Your task to perform on an android device: toggle show notifications on the lock screen Image 0: 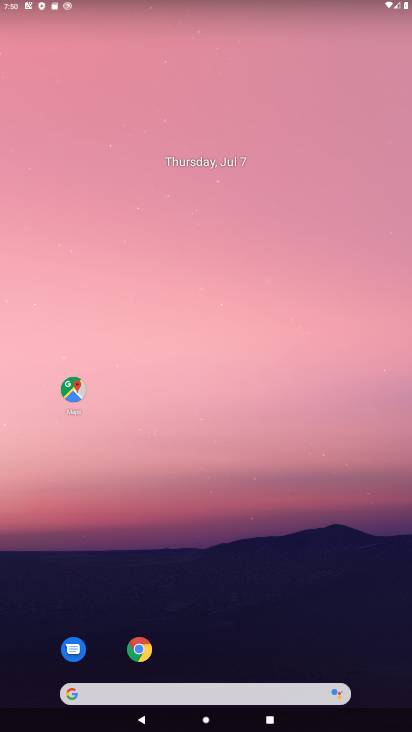
Step 0: drag from (253, 447) to (118, 53)
Your task to perform on an android device: toggle show notifications on the lock screen Image 1: 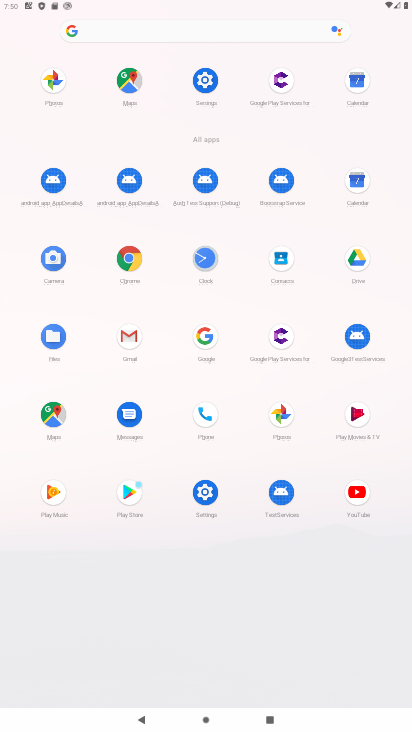
Step 1: click (198, 494)
Your task to perform on an android device: toggle show notifications on the lock screen Image 2: 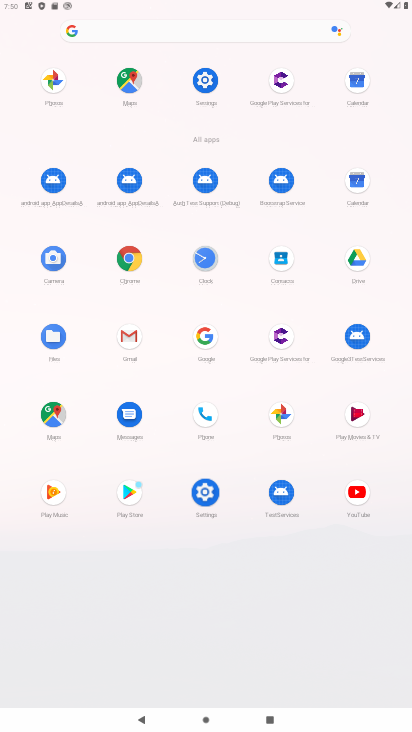
Step 2: click (210, 499)
Your task to perform on an android device: toggle show notifications on the lock screen Image 3: 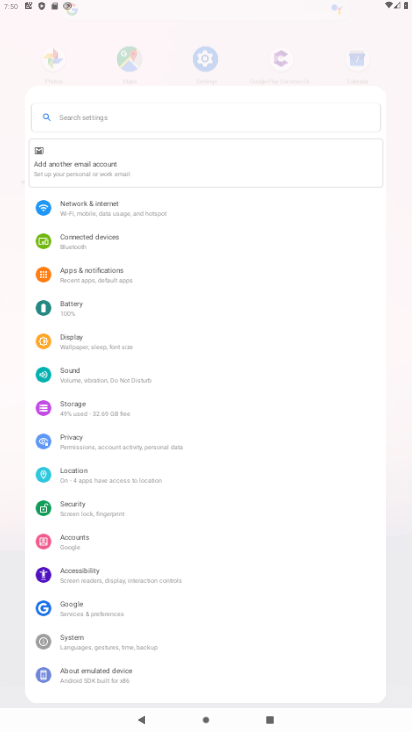
Step 3: click (209, 494)
Your task to perform on an android device: toggle show notifications on the lock screen Image 4: 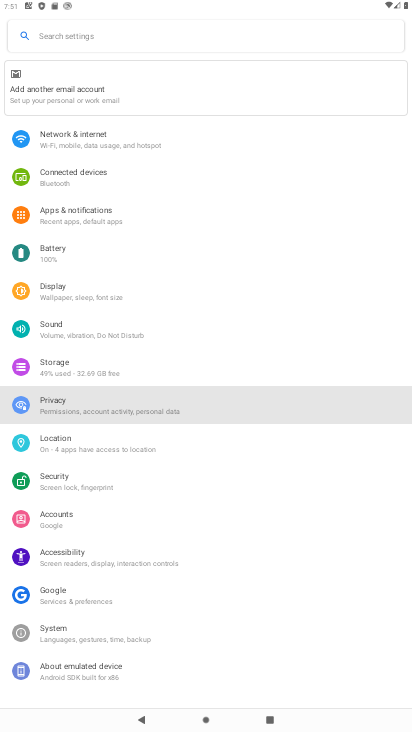
Step 4: click (210, 494)
Your task to perform on an android device: toggle show notifications on the lock screen Image 5: 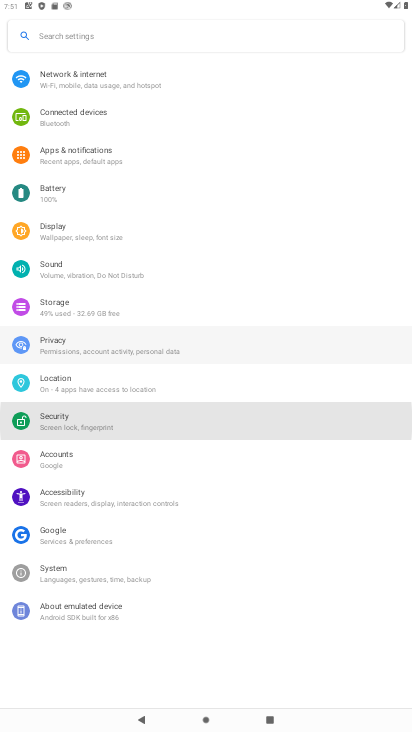
Step 5: click (210, 494)
Your task to perform on an android device: toggle show notifications on the lock screen Image 6: 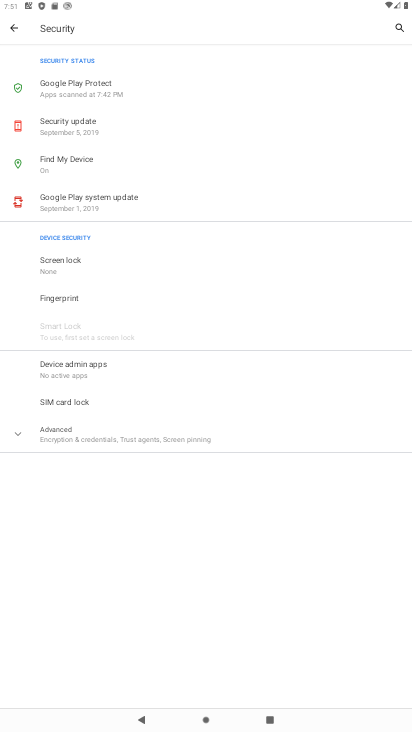
Step 6: click (87, 154)
Your task to perform on an android device: toggle show notifications on the lock screen Image 7: 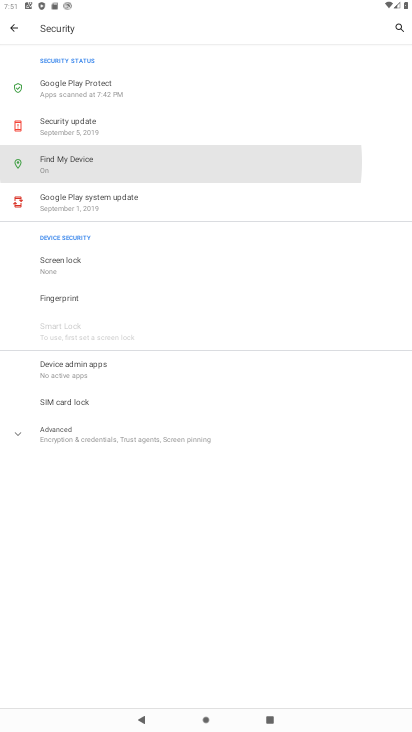
Step 7: click (87, 154)
Your task to perform on an android device: toggle show notifications on the lock screen Image 8: 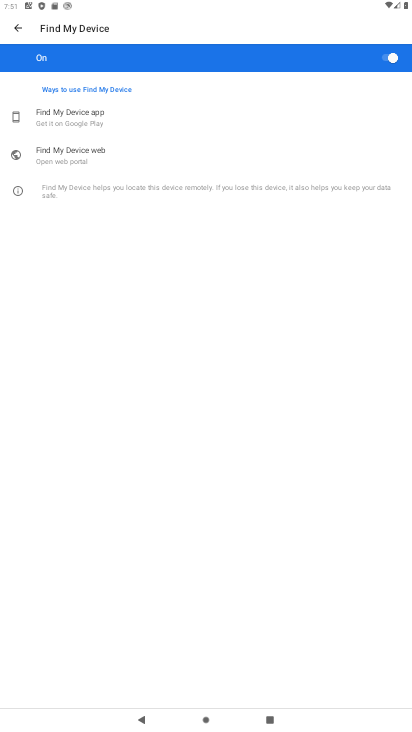
Step 8: click (18, 32)
Your task to perform on an android device: toggle show notifications on the lock screen Image 9: 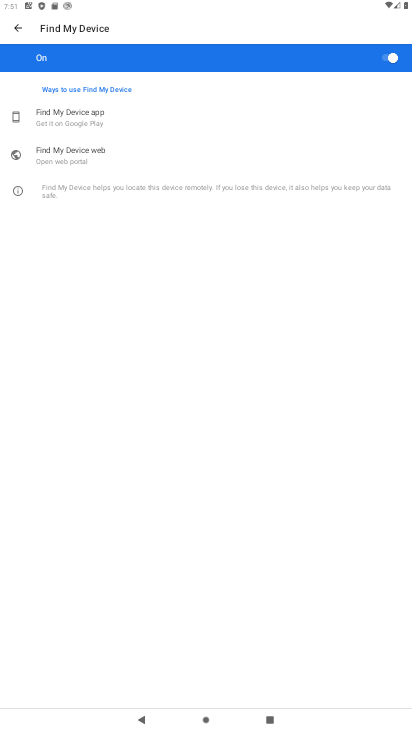
Step 9: click (24, 24)
Your task to perform on an android device: toggle show notifications on the lock screen Image 10: 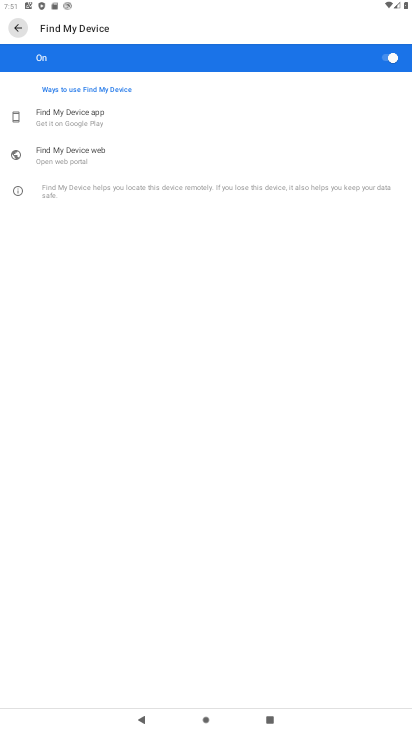
Step 10: click (24, 24)
Your task to perform on an android device: toggle show notifications on the lock screen Image 11: 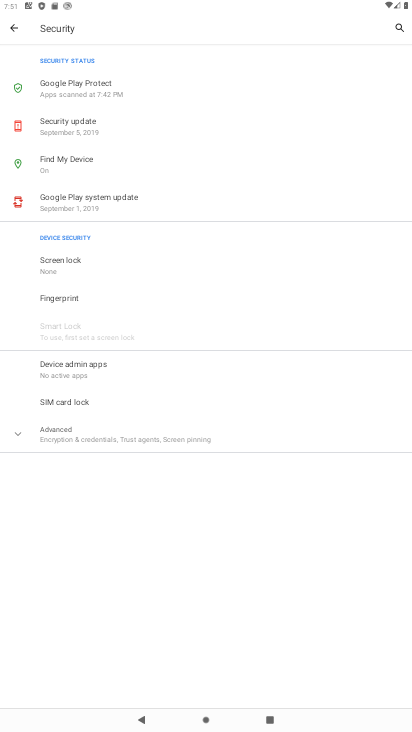
Step 11: click (15, 24)
Your task to perform on an android device: toggle show notifications on the lock screen Image 12: 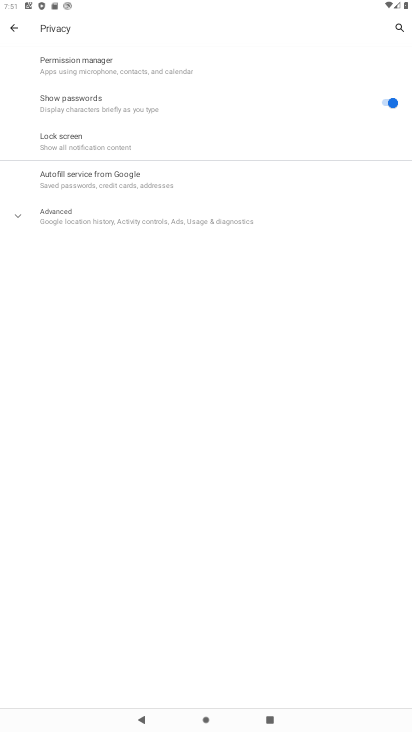
Step 12: task complete